Your task to perform on an android device: Search for alienware area 51 on newegg, select the first entry, and add it to the cart. Image 0: 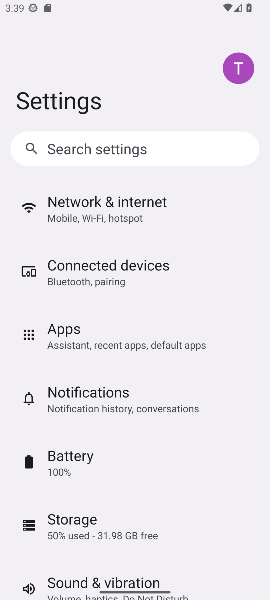
Step 0: press home button
Your task to perform on an android device: Search for alienware area 51 on newegg, select the first entry, and add it to the cart. Image 1: 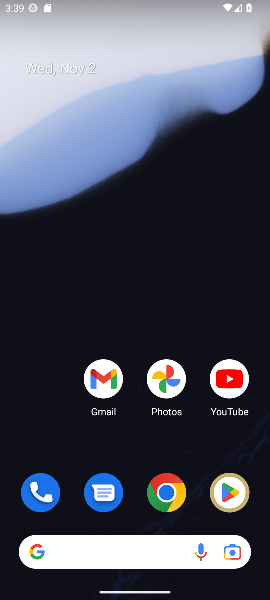
Step 1: click (164, 494)
Your task to perform on an android device: Search for alienware area 51 on newegg, select the first entry, and add it to the cart. Image 2: 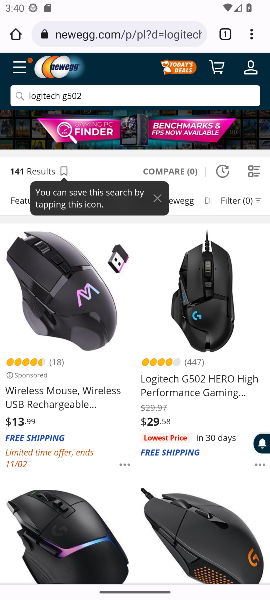
Step 2: click (19, 93)
Your task to perform on an android device: Search for alienware area 51 on newegg, select the first entry, and add it to the cart. Image 3: 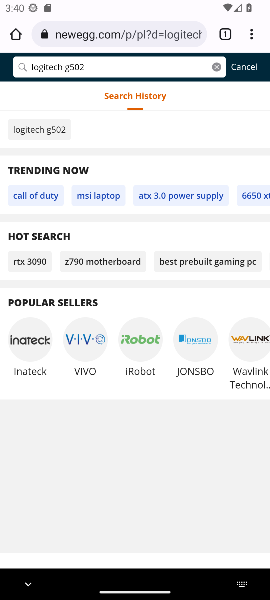
Step 3: click (216, 64)
Your task to perform on an android device: Search for alienware area 51 on newegg, select the first entry, and add it to the cart. Image 4: 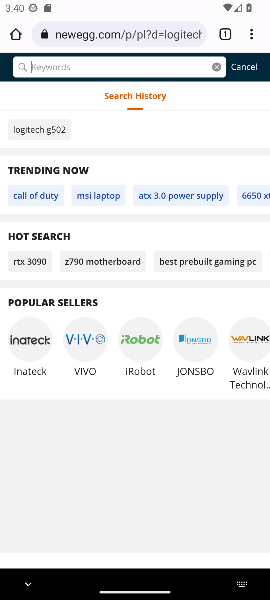
Step 4: type "alienware area 51"
Your task to perform on an android device: Search for alienware area 51 on newegg, select the first entry, and add it to the cart. Image 5: 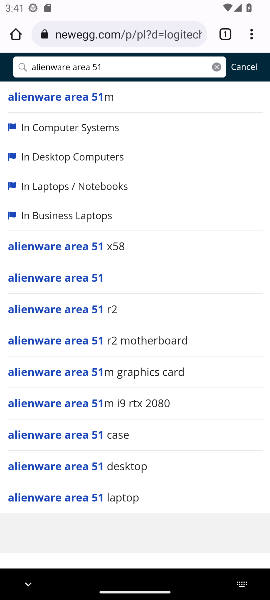
Step 5: click (66, 93)
Your task to perform on an android device: Search for alienware area 51 on newegg, select the first entry, and add it to the cart. Image 6: 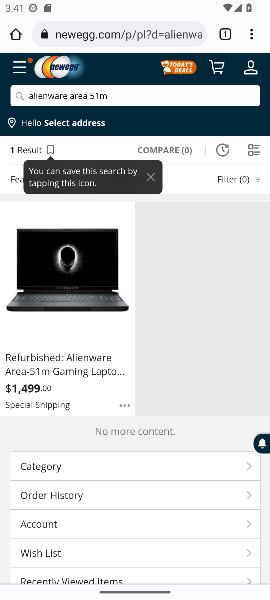
Step 6: click (33, 374)
Your task to perform on an android device: Search for alienware area 51 on newegg, select the first entry, and add it to the cart. Image 7: 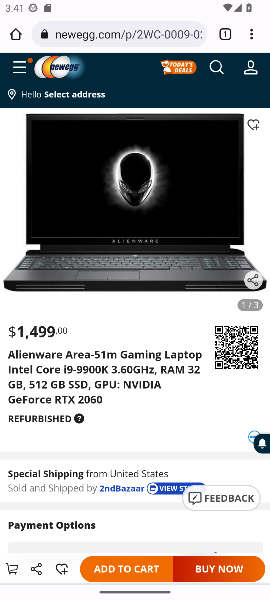
Step 7: click (126, 573)
Your task to perform on an android device: Search for alienware area 51 on newegg, select the first entry, and add it to the cart. Image 8: 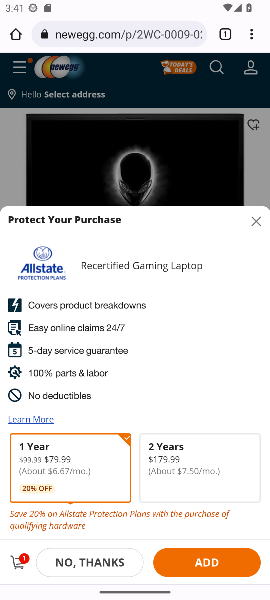
Step 8: task complete